Your task to perform on an android device: set an alarm Image 0: 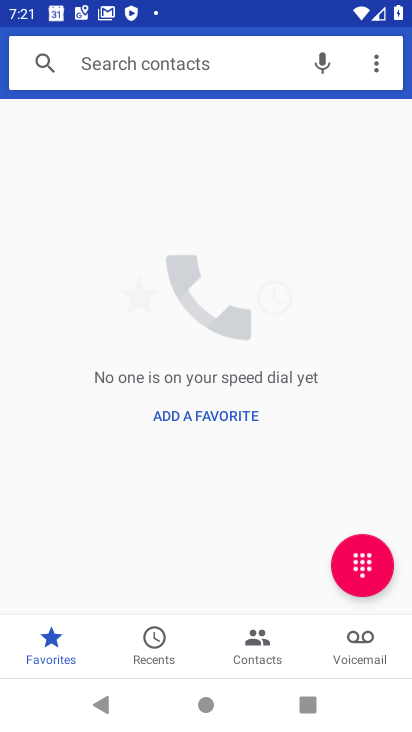
Step 0: press home button
Your task to perform on an android device: set an alarm Image 1: 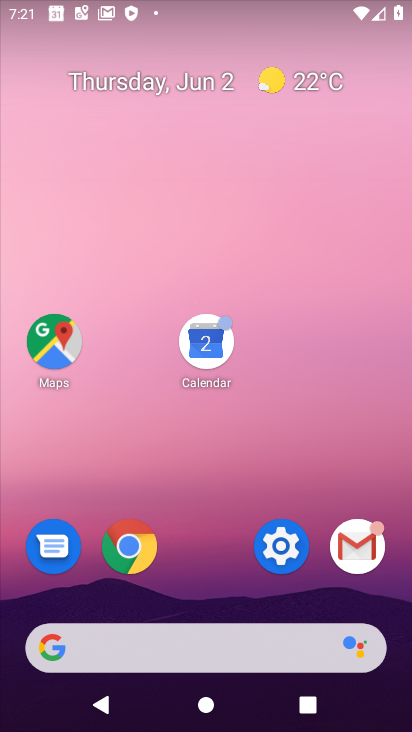
Step 1: drag from (247, 666) to (276, 99)
Your task to perform on an android device: set an alarm Image 2: 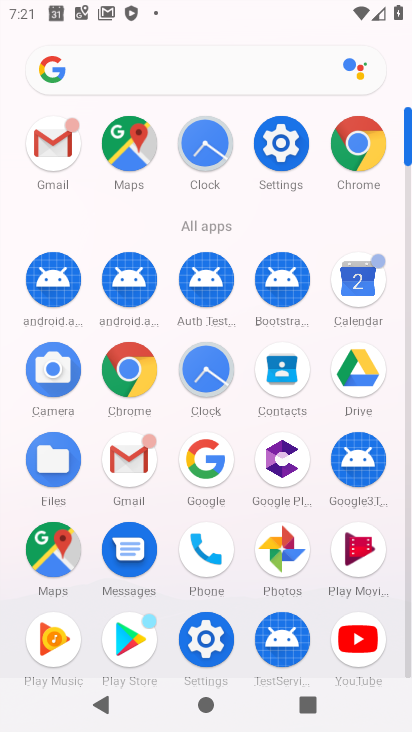
Step 2: click (212, 354)
Your task to perform on an android device: set an alarm Image 3: 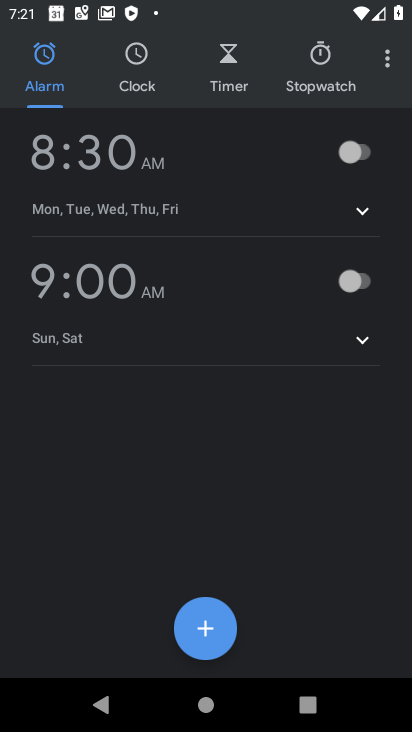
Step 3: click (342, 160)
Your task to perform on an android device: set an alarm Image 4: 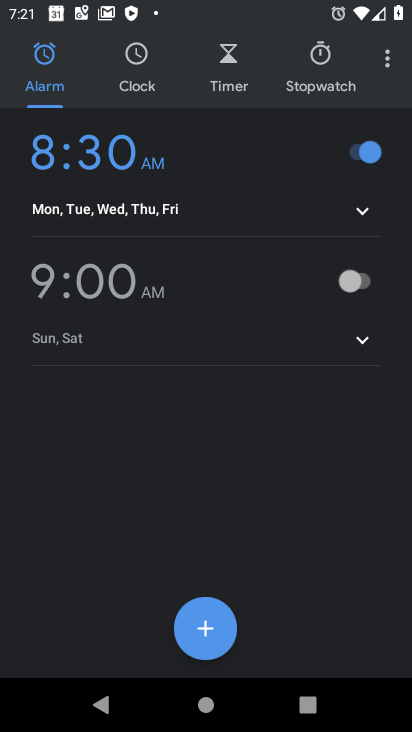
Step 4: task complete